Your task to perform on an android device: turn off data saver in the chrome app Image 0: 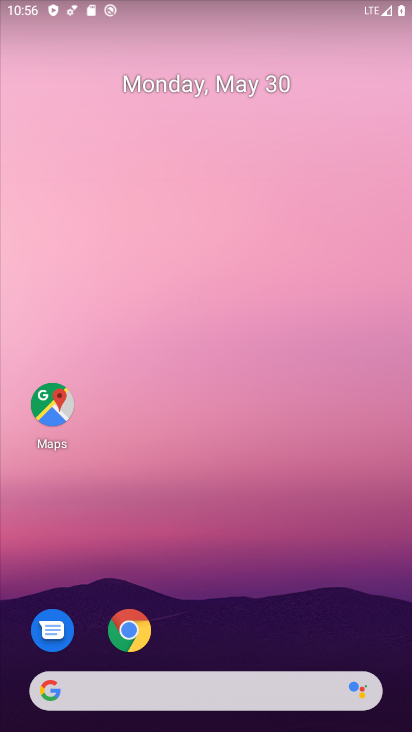
Step 0: click (123, 633)
Your task to perform on an android device: turn off data saver in the chrome app Image 1: 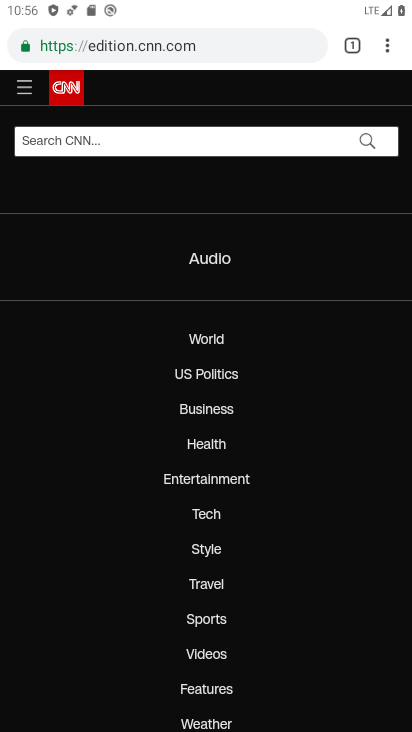
Step 1: click (392, 43)
Your task to perform on an android device: turn off data saver in the chrome app Image 2: 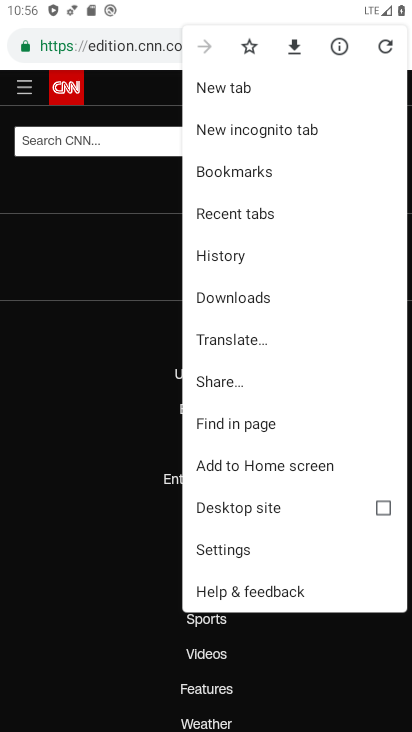
Step 2: click (253, 551)
Your task to perform on an android device: turn off data saver in the chrome app Image 3: 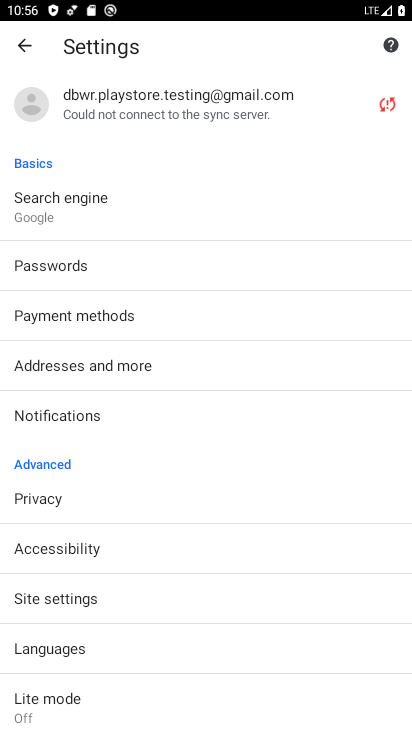
Step 3: click (88, 702)
Your task to perform on an android device: turn off data saver in the chrome app Image 4: 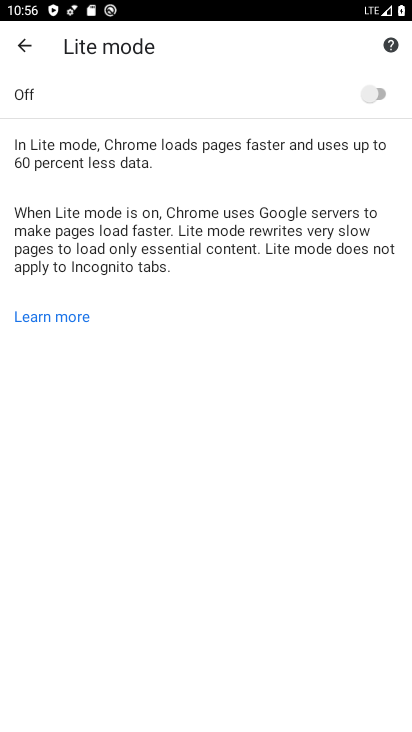
Step 4: task complete